Your task to perform on an android device: turn off improve location accuracy Image 0: 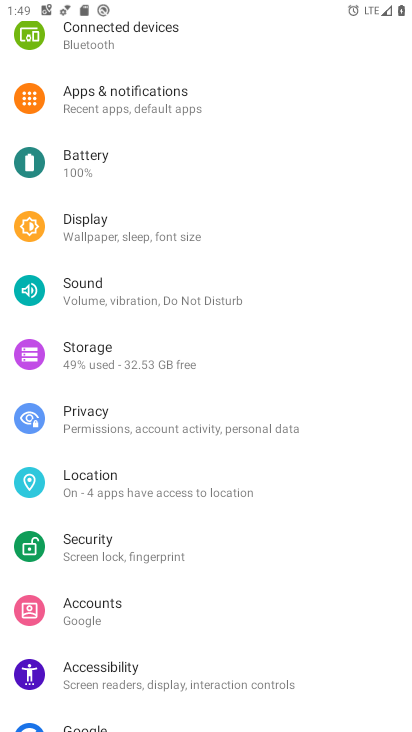
Step 0: press home button
Your task to perform on an android device: turn off improve location accuracy Image 1: 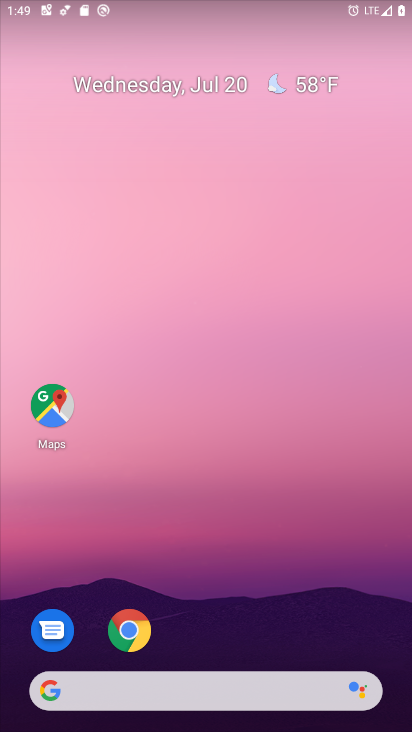
Step 1: drag from (249, 650) to (268, 269)
Your task to perform on an android device: turn off improve location accuracy Image 2: 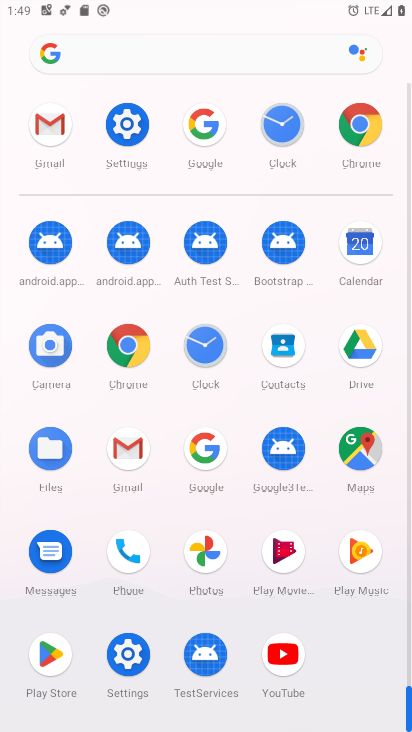
Step 2: click (124, 123)
Your task to perform on an android device: turn off improve location accuracy Image 3: 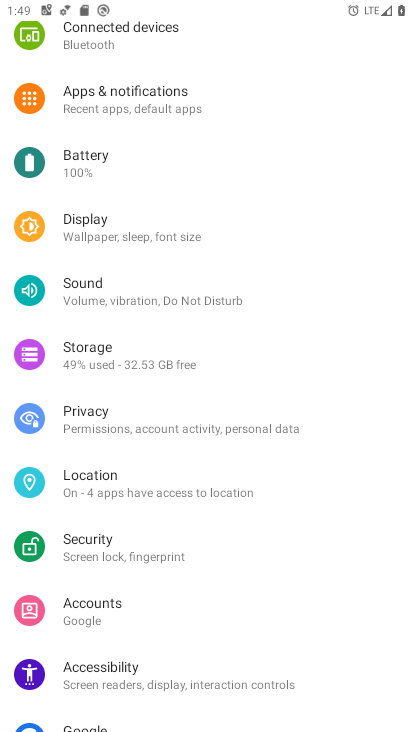
Step 3: drag from (137, 342) to (139, 519)
Your task to perform on an android device: turn off improve location accuracy Image 4: 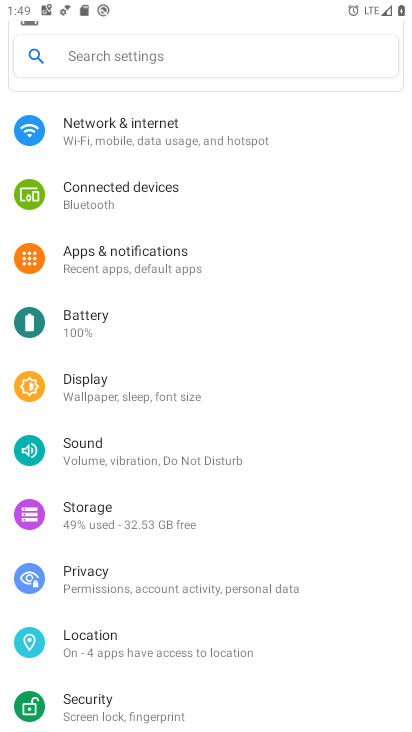
Step 4: click (143, 654)
Your task to perform on an android device: turn off improve location accuracy Image 5: 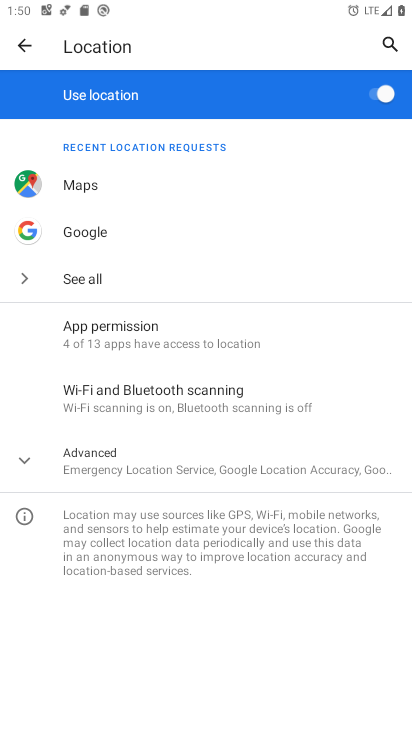
Step 5: click (160, 459)
Your task to perform on an android device: turn off improve location accuracy Image 6: 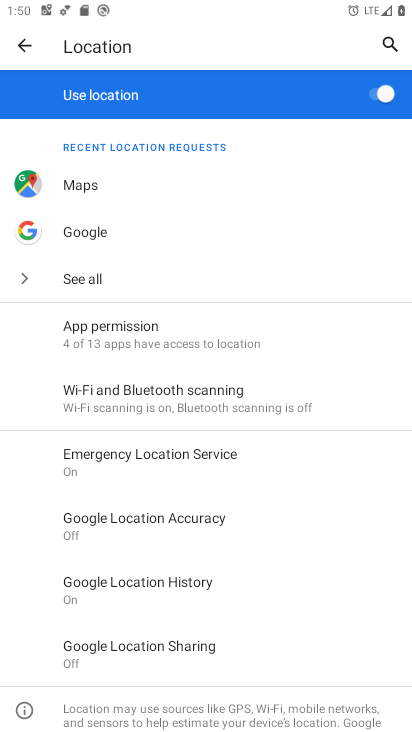
Step 6: click (175, 523)
Your task to perform on an android device: turn off improve location accuracy Image 7: 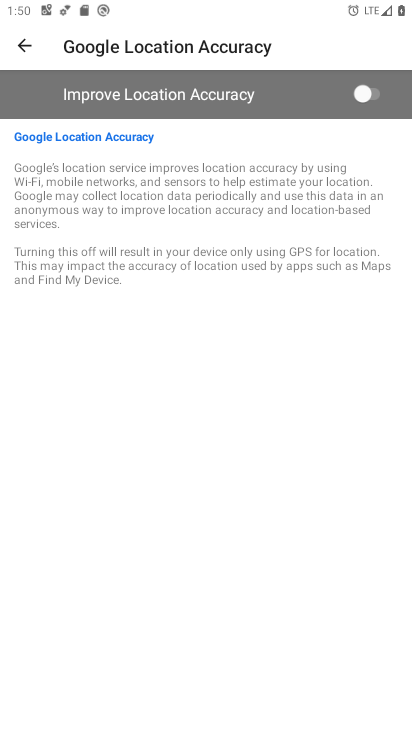
Step 7: task complete